Your task to perform on an android device: Open Youtube and go to the subscriptions tab Image 0: 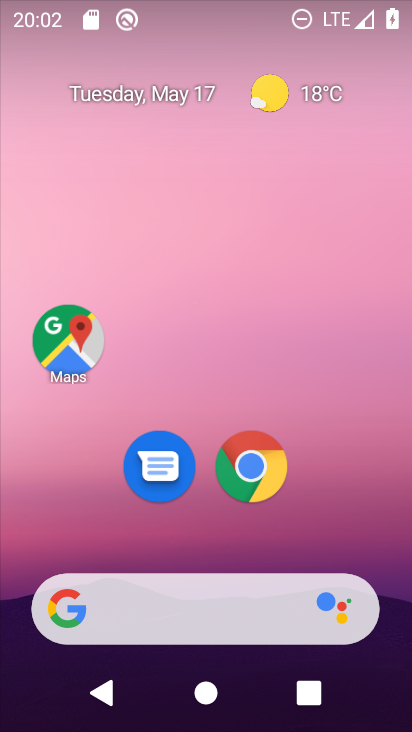
Step 0: press home button
Your task to perform on an android device: Open Youtube and go to the subscriptions tab Image 1: 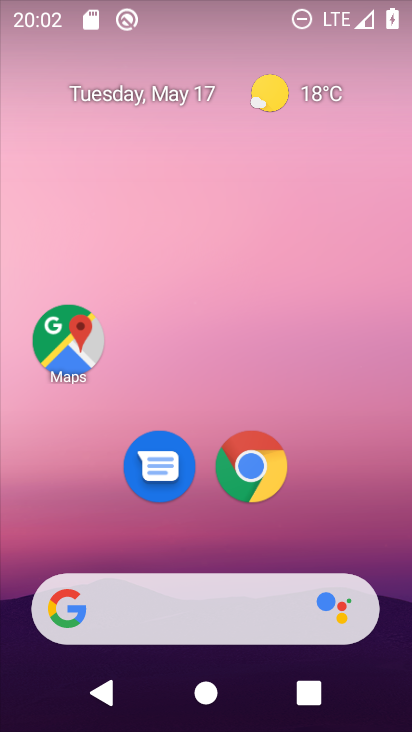
Step 1: drag from (158, 624) to (288, 187)
Your task to perform on an android device: Open Youtube and go to the subscriptions tab Image 2: 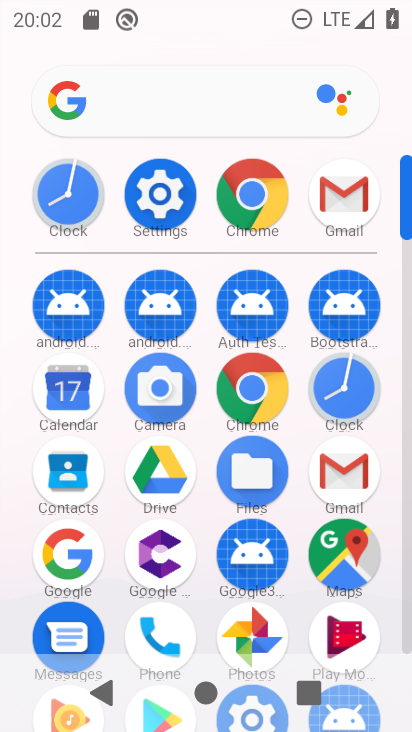
Step 2: drag from (200, 659) to (326, 208)
Your task to perform on an android device: Open Youtube and go to the subscriptions tab Image 3: 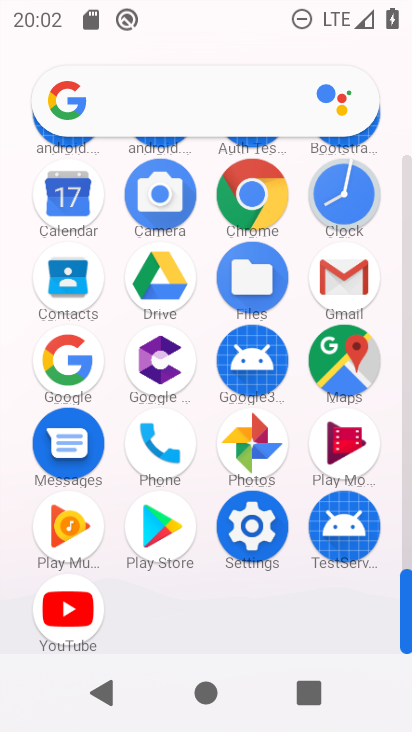
Step 3: click (82, 624)
Your task to perform on an android device: Open Youtube and go to the subscriptions tab Image 4: 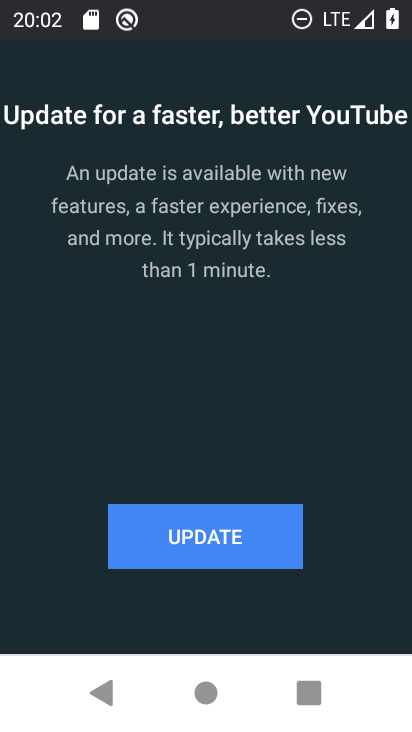
Step 4: click (202, 538)
Your task to perform on an android device: Open Youtube and go to the subscriptions tab Image 5: 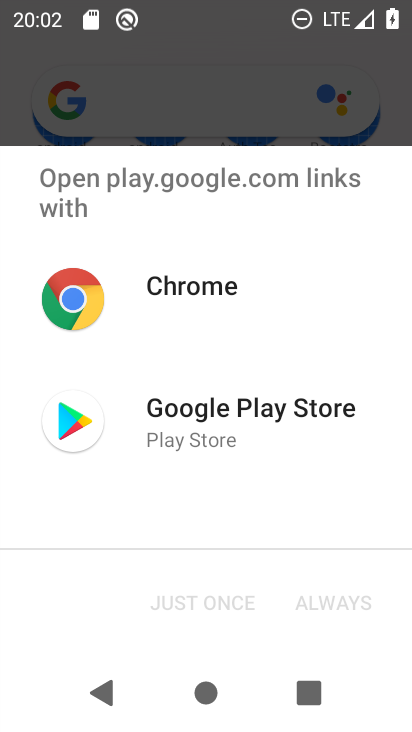
Step 5: click (169, 436)
Your task to perform on an android device: Open Youtube and go to the subscriptions tab Image 6: 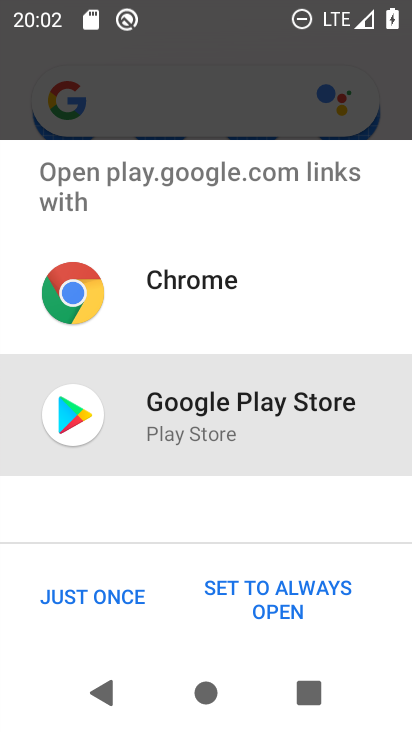
Step 6: click (110, 591)
Your task to perform on an android device: Open Youtube and go to the subscriptions tab Image 7: 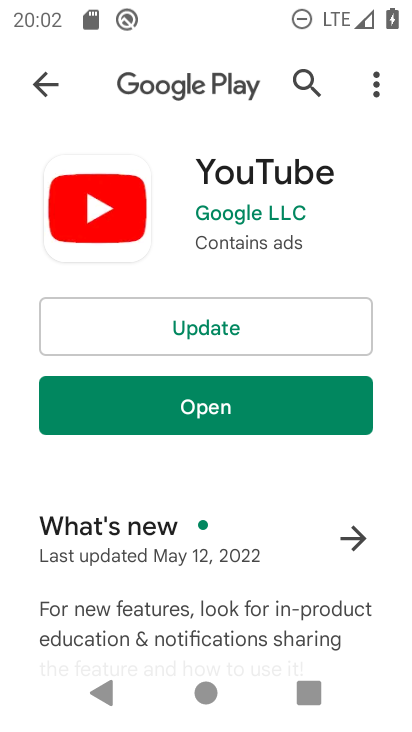
Step 7: click (224, 321)
Your task to perform on an android device: Open Youtube and go to the subscriptions tab Image 8: 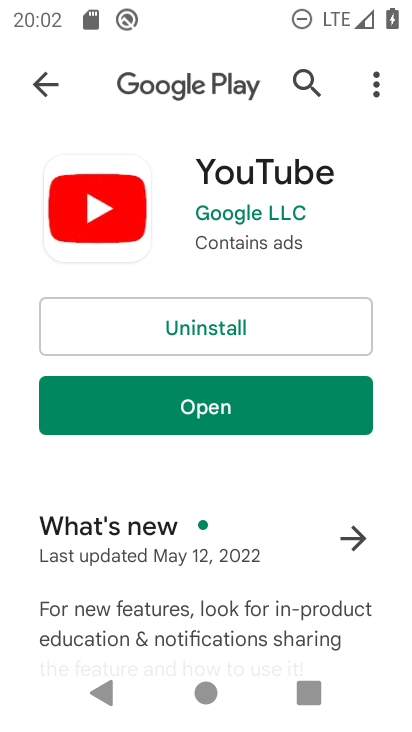
Step 8: click (207, 414)
Your task to perform on an android device: Open Youtube and go to the subscriptions tab Image 9: 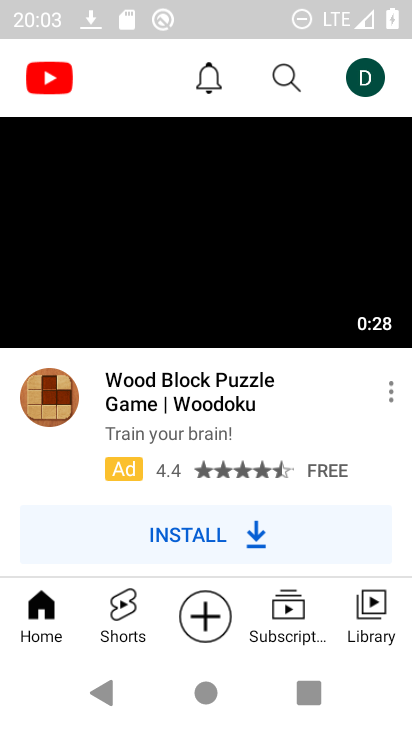
Step 9: click (288, 614)
Your task to perform on an android device: Open Youtube and go to the subscriptions tab Image 10: 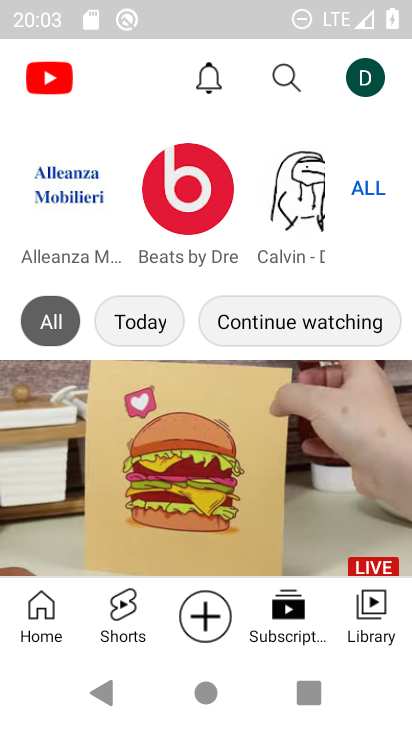
Step 10: task complete